Your task to perform on an android device: open app "Microsoft Excel" (install if not already installed) Image 0: 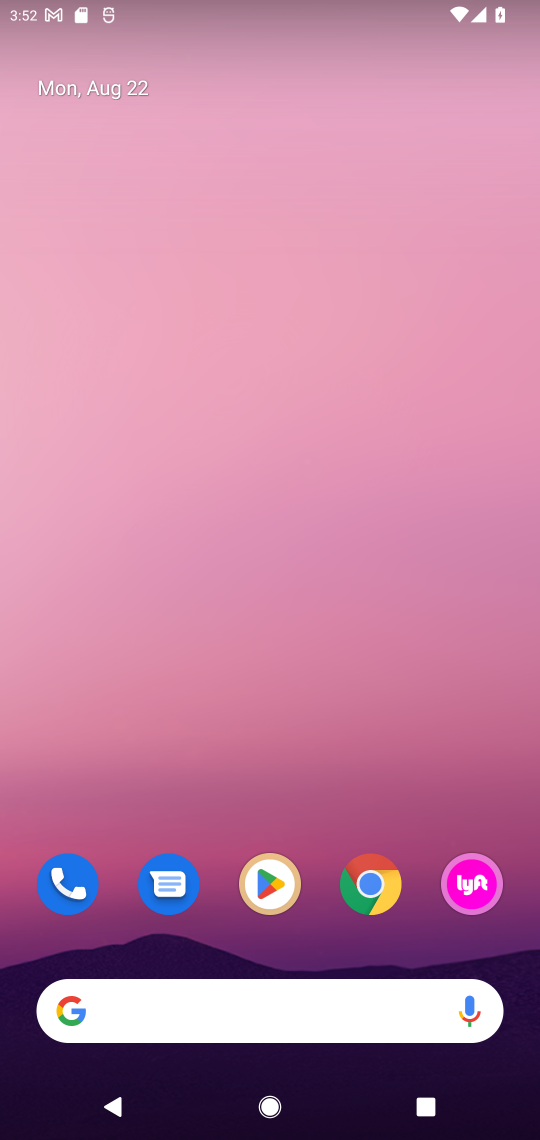
Step 0: click (269, 853)
Your task to perform on an android device: open app "Microsoft Excel" (install if not already installed) Image 1: 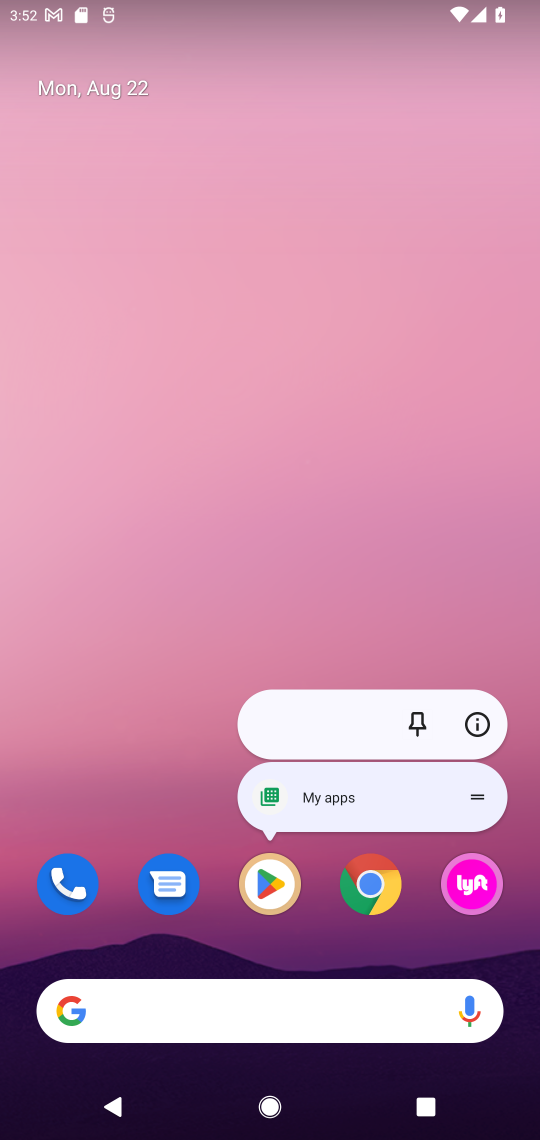
Step 1: click (276, 881)
Your task to perform on an android device: open app "Microsoft Excel" (install if not already installed) Image 2: 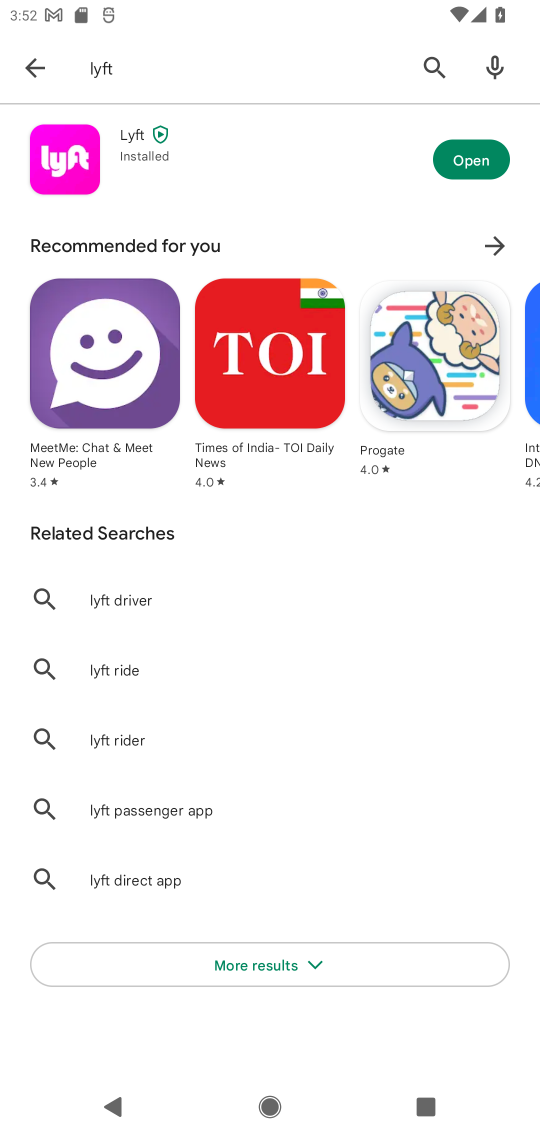
Step 2: click (165, 71)
Your task to perform on an android device: open app "Microsoft Excel" (install if not already installed) Image 3: 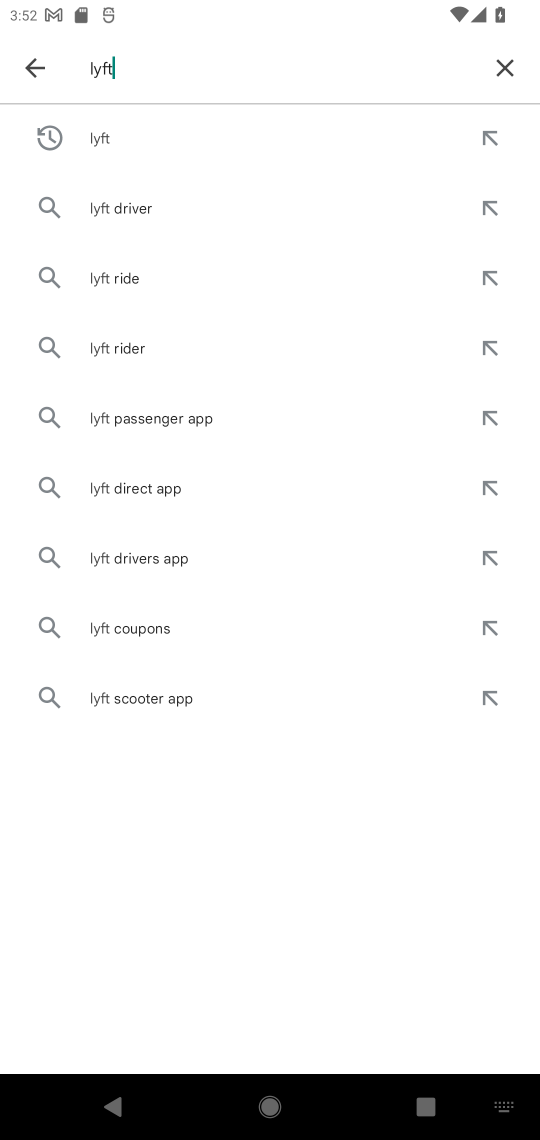
Step 3: click (490, 57)
Your task to perform on an android device: open app "Microsoft Excel" (install if not already installed) Image 4: 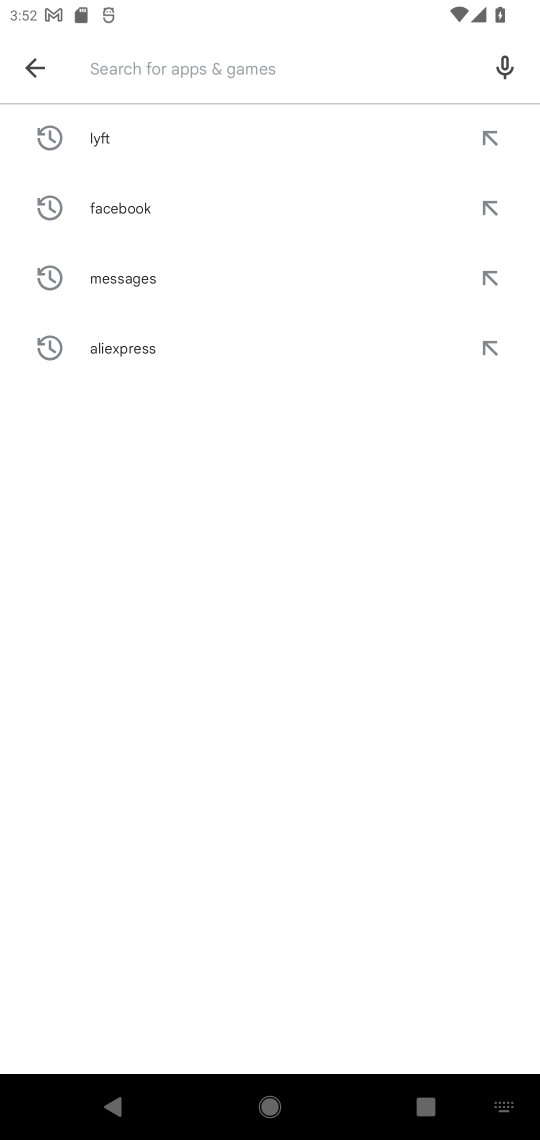
Step 4: type "microsoft excel"
Your task to perform on an android device: open app "Microsoft Excel" (install if not already installed) Image 5: 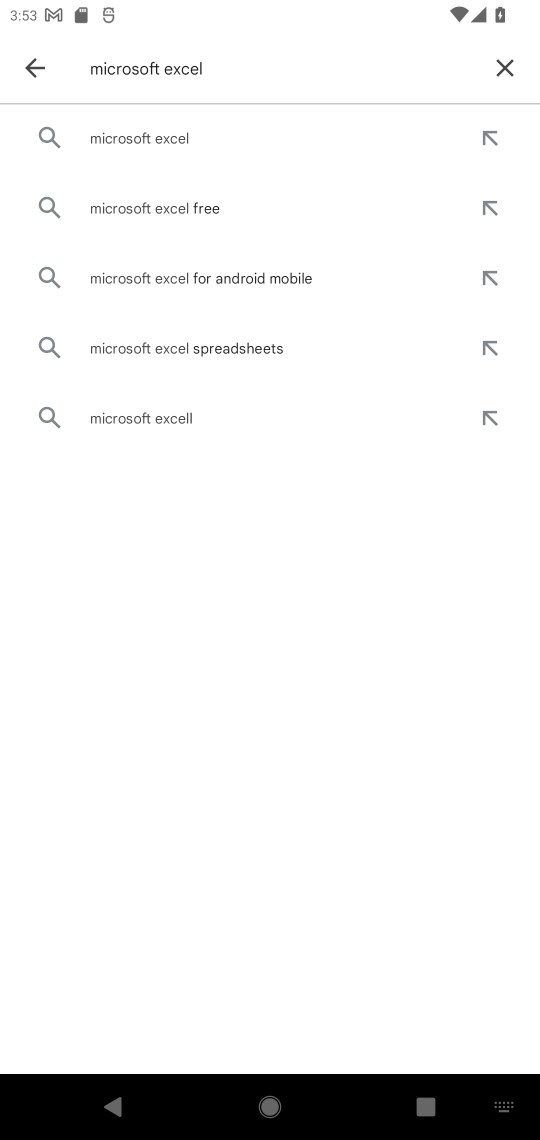
Step 5: click (115, 151)
Your task to perform on an android device: open app "Microsoft Excel" (install if not already installed) Image 6: 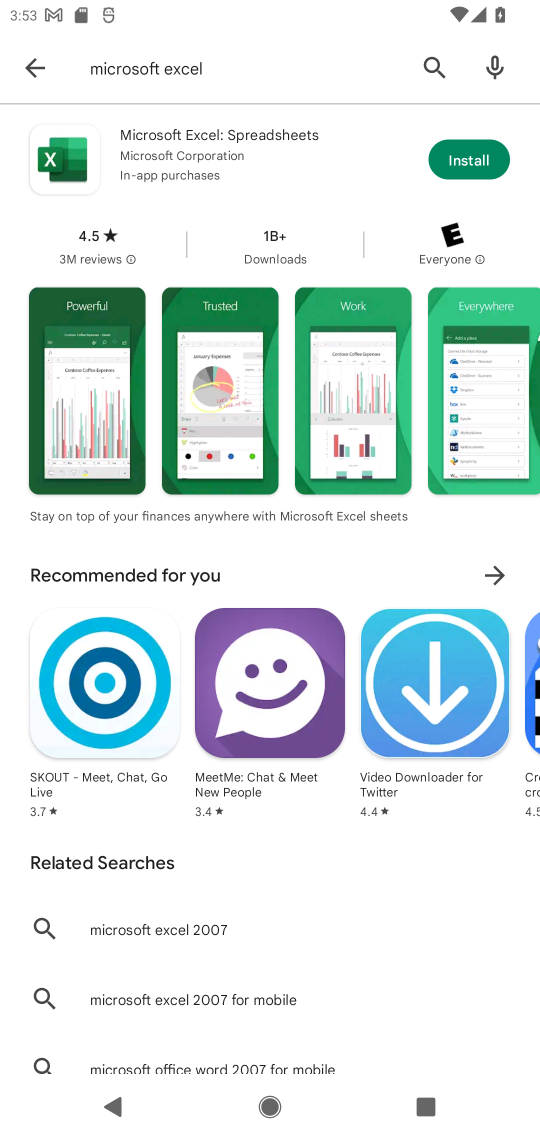
Step 6: click (469, 149)
Your task to perform on an android device: open app "Microsoft Excel" (install if not already installed) Image 7: 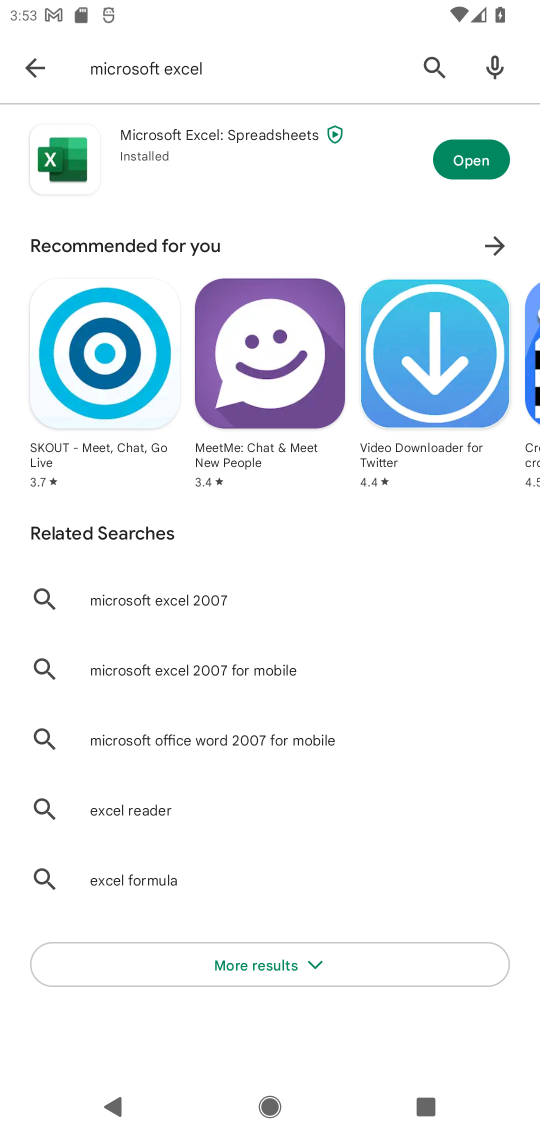
Step 7: click (465, 147)
Your task to perform on an android device: open app "Microsoft Excel" (install if not already installed) Image 8: 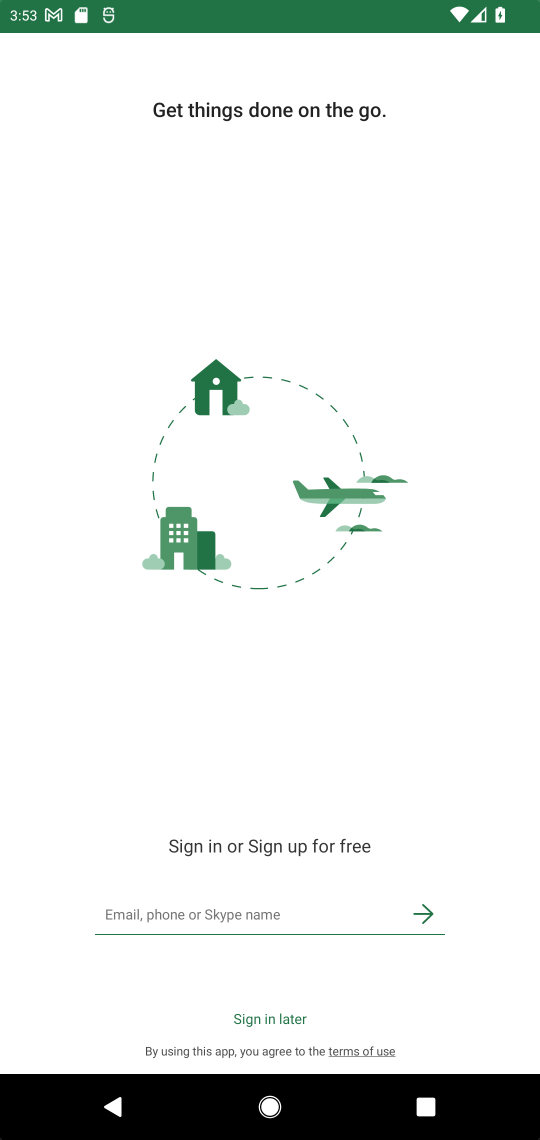
Step 8: task complete